Your task to perform on an android device: Open calendar and show me the third week of next month Image 0: 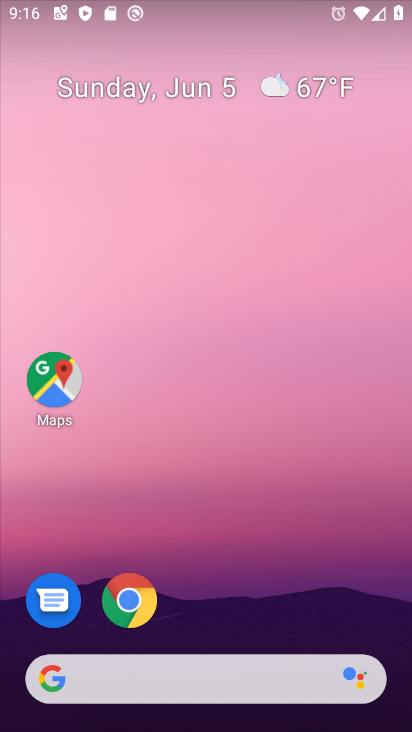
Step 0: drag from (386, 623) to (292, 25)
Your task to perform on an android device: Open calendar and show me the third week of next month Image 1: 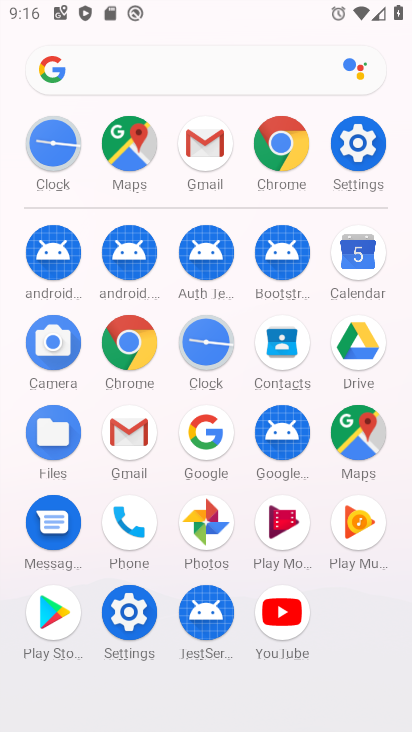
Step 1: click (354, 264)
Your task to perform on an android device: Open calendar and show me the third week of next month Image 2: 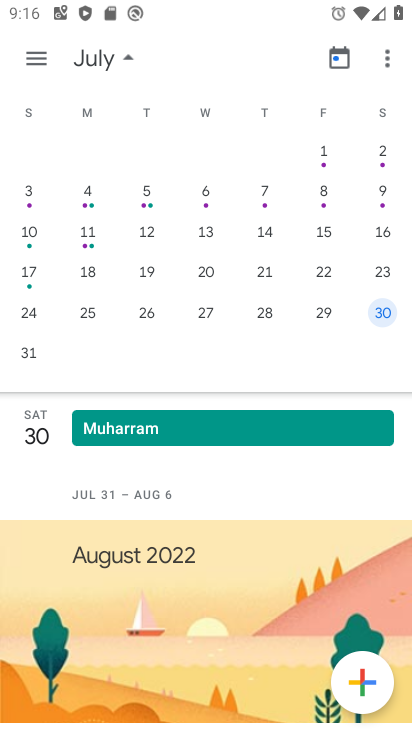
Step 2: drag from (389, 236) to (53, 222)
Your task to perform on an android device: Open calendar and show me the third week of next month Image 3: 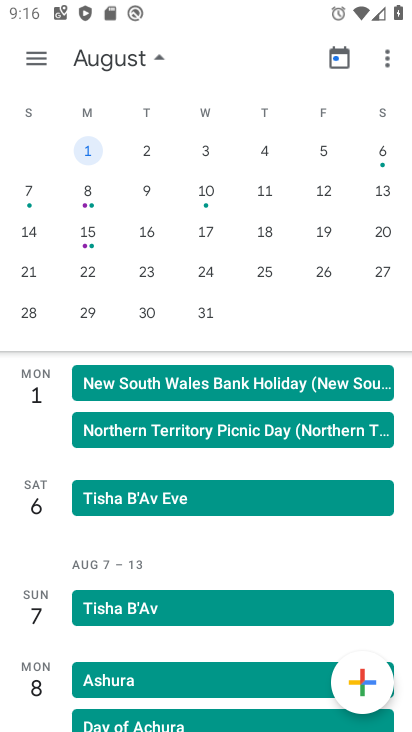
Step 3: click (206, 274)
Your task to perform on an android device: Open calendar and show me the third week of next month Image 4: 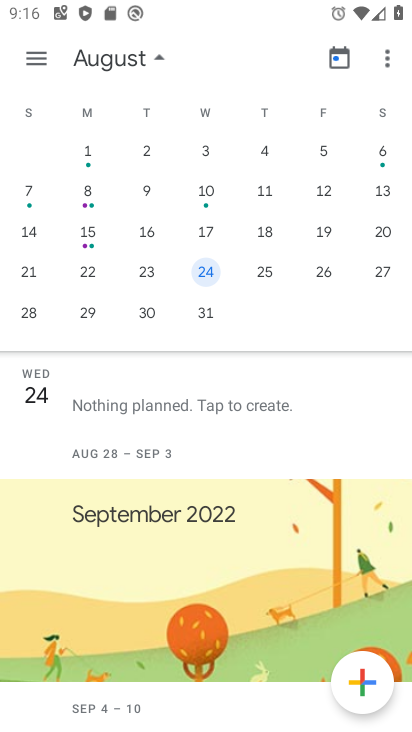
Step 4: task complete